Your task to perform on an android device: change the clock style Image 0: 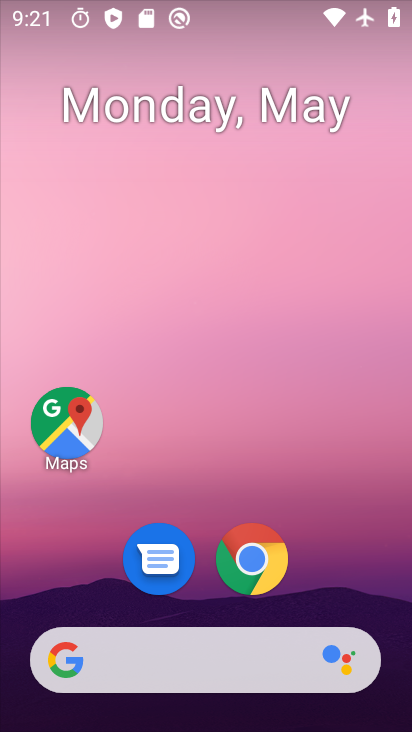
Step 0: drag from (342, 517) to (281, 34)
Your task to perform on an android device: change the clock style Image 1: 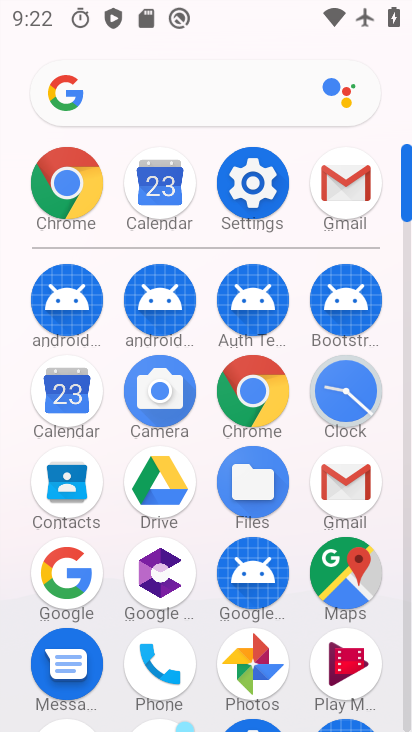
Step 1: click (339, 400)
Your task to perform on an android device: change the clock style Image 2: 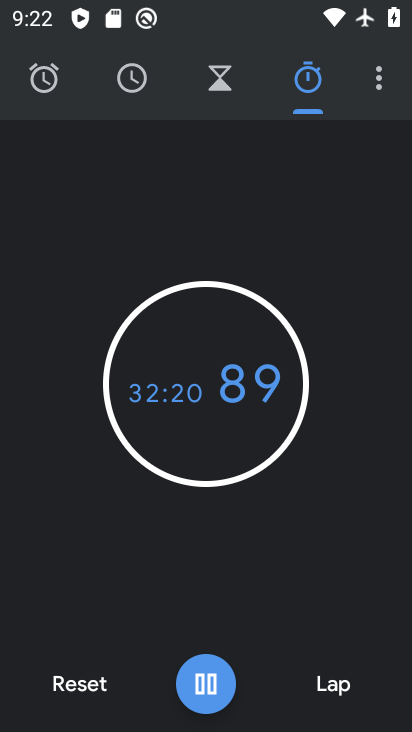
Step 2: click (372, 78)
Your task to perform on an android device: change the clock style Image 3: 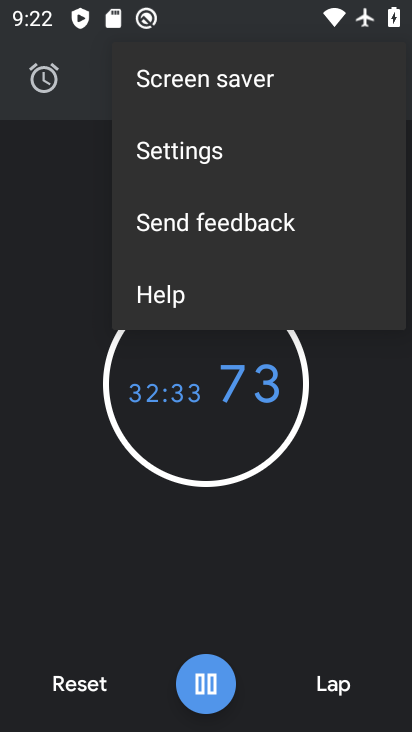
Step 3: click (190, 158)
Your task to perform on an android device: change the clock style Image 4: 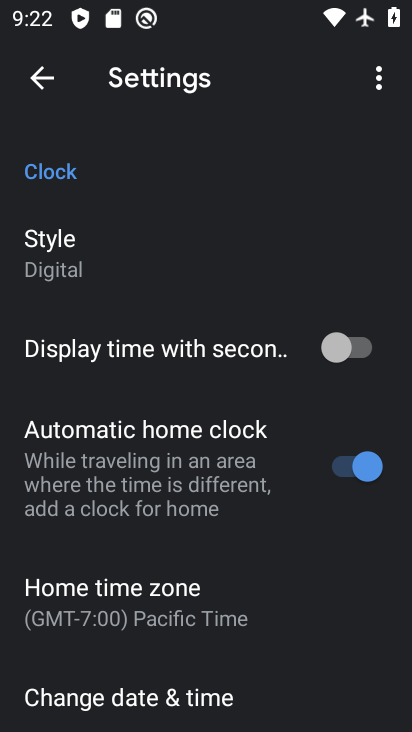
Step 4: click (86, 257)
Your task to perform on an android device: change the clock style Image 5: 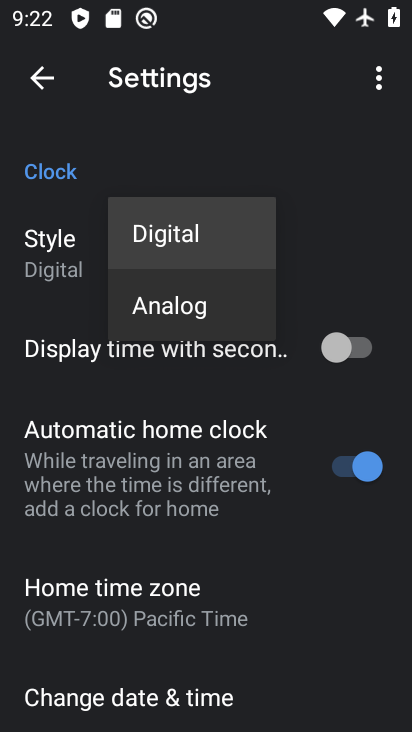
Step 5: click (148, 303)
Your task to perform on an android device: change the clock style Image 6: 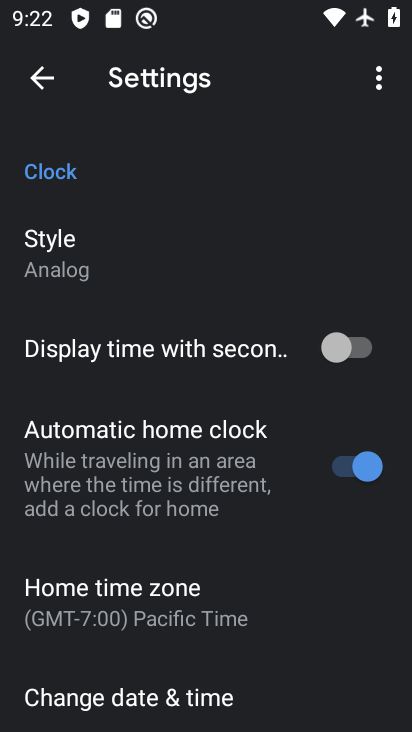
Step 6: task complete